Your task to perform on an android device: Search for "razer blade" on costco.com, select the first entry, and add it to the cart. Image 0: 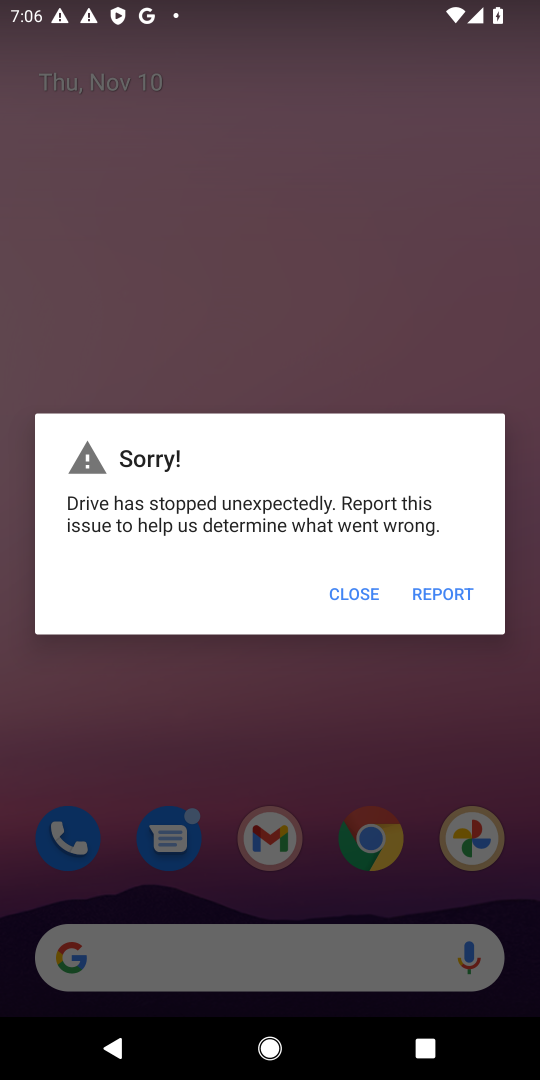
Step 0: press home button
Your task to perform on an android device: Search for "razer blade" on costco.com, select the first entry, and add it to the cart. Image 1: 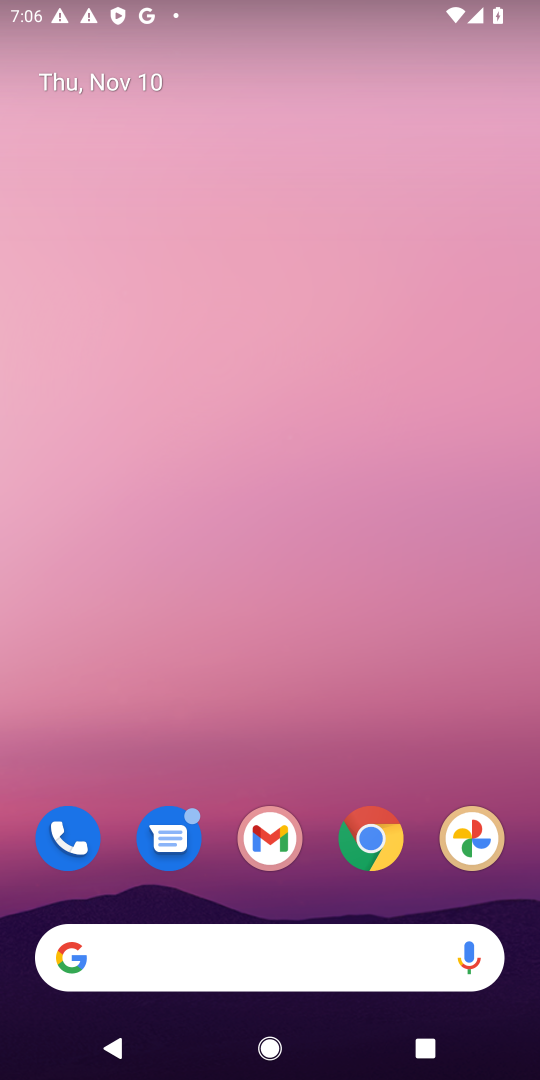
Step 1: drag from (321, 911) to (349, 124)
Your task to perform on an android device: Search for "razer blade" on costco.com, select the first entry, and add it to the cart. Image 2: 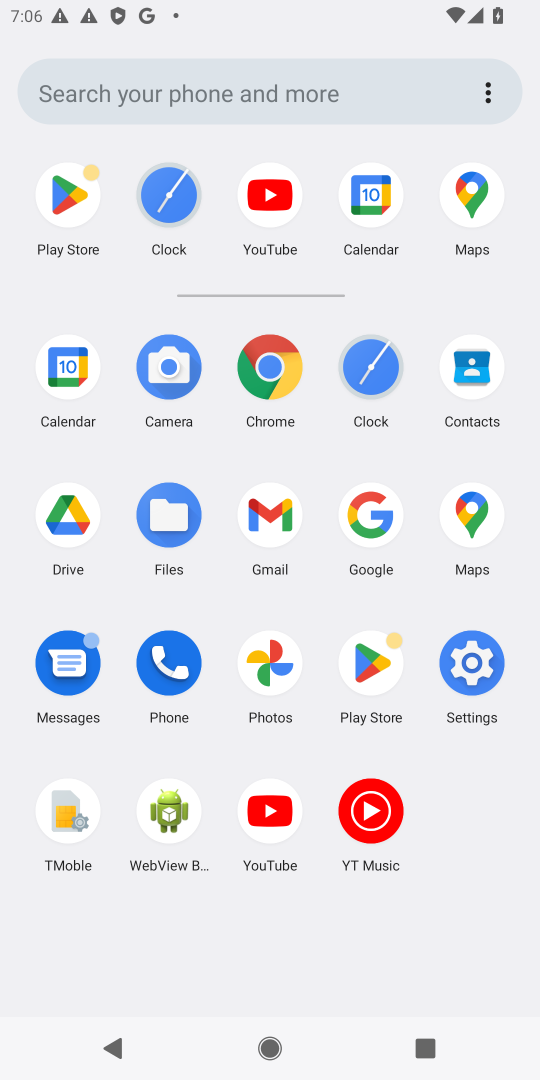
Step 2: click (260, 370)
Your task to perform on an android device: Search for "razer blade" on costco.com, select the first entry, and add it to the cart. Image 3: 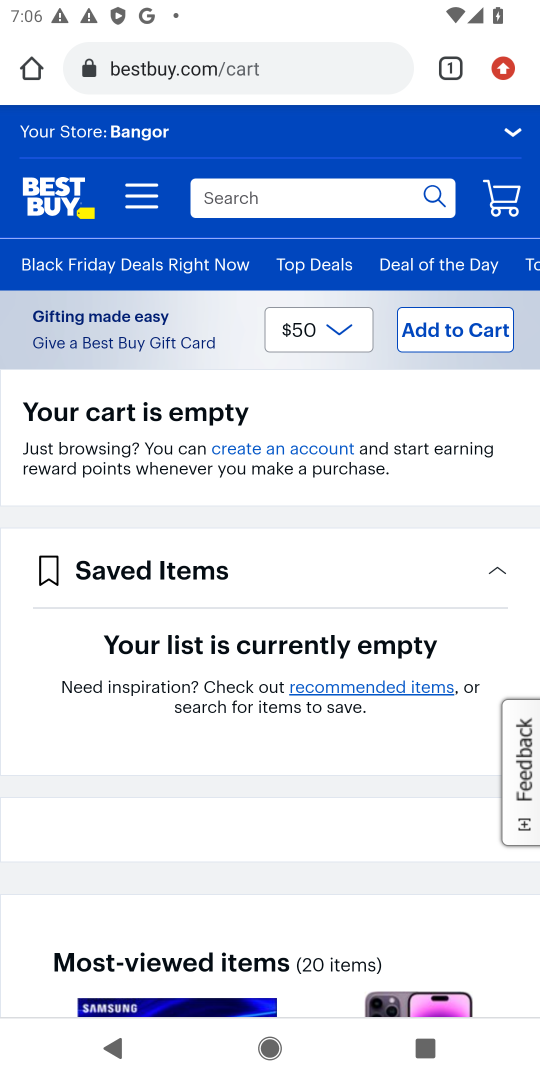
Step 3: click (262, 54)
Your task to perform on an android device: Search for "razer blade" on costco.com, select the first entry, and add it to the cart. Image 4: 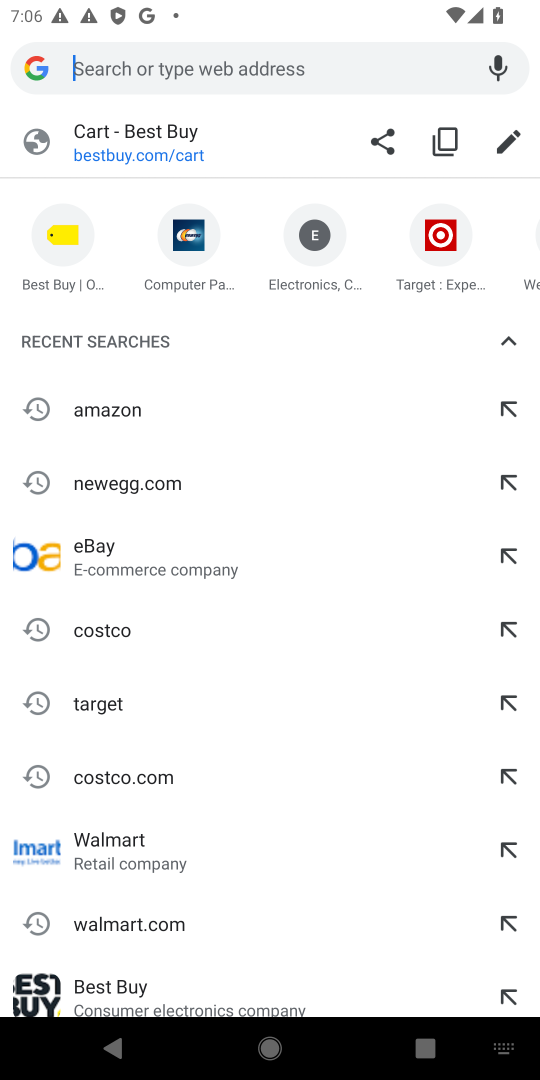
Step 4: type "costco.com"
Your task to perform on an android device: Search for "razer blade" on costco.com, select the first entry, and add it to the cart. Image 5: 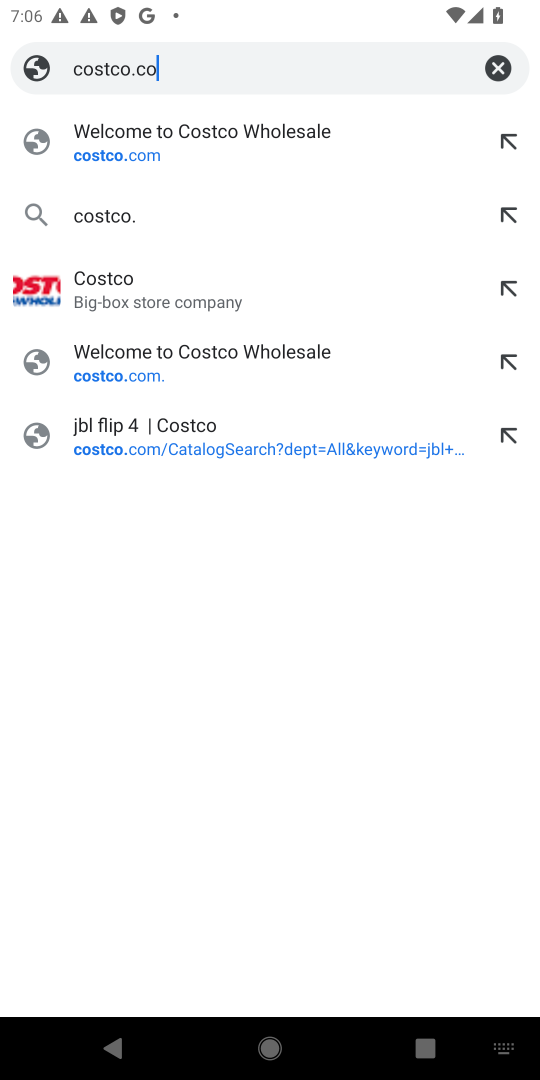
Step 5: press enter
Your task to perform on an android device: Search for "razer blade" on costco.com, select the first entry, and add it to the cart. Image 6: 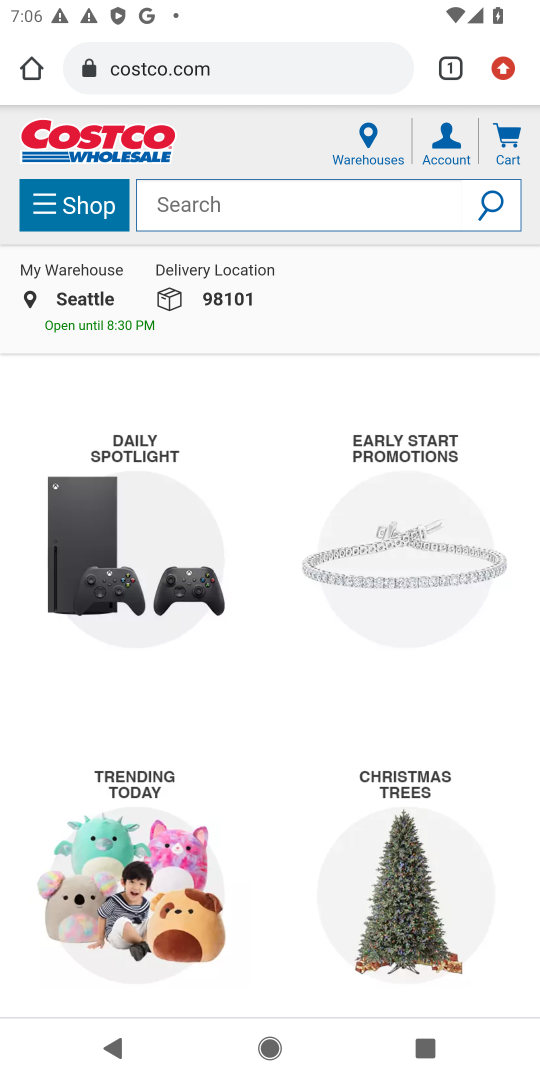
Step 6: click (179, 215)
Your task to perform on an android device: Search for "razer blade" on costco.com, select the first entry, and add it to the cart. Image 7: 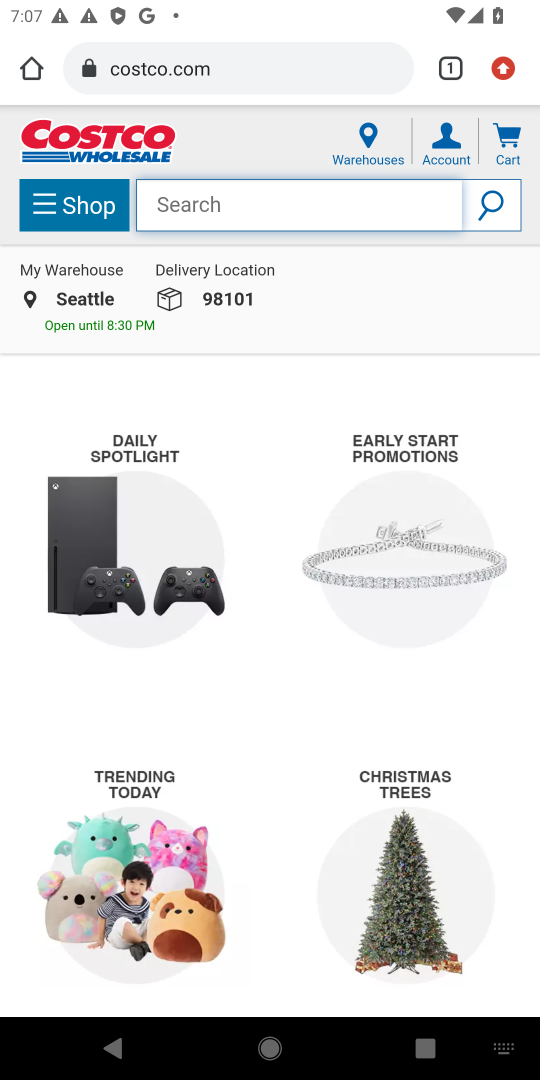
Step 7: type "razer blade"
Your task to perform on an android device: Search for "razer blade" on costco.com, select the first entry, and add it to the cart. Image 8: 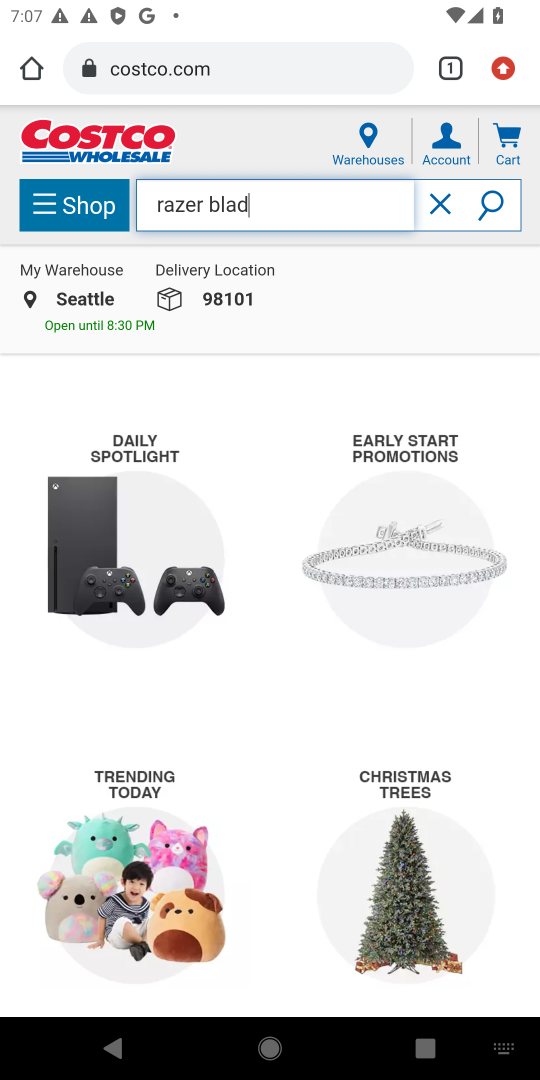
Step 8: press enter
Your task to perform on an android device: Search for "razer blade" on costco.com, select the first entry, and add it to the cart. Image 9: 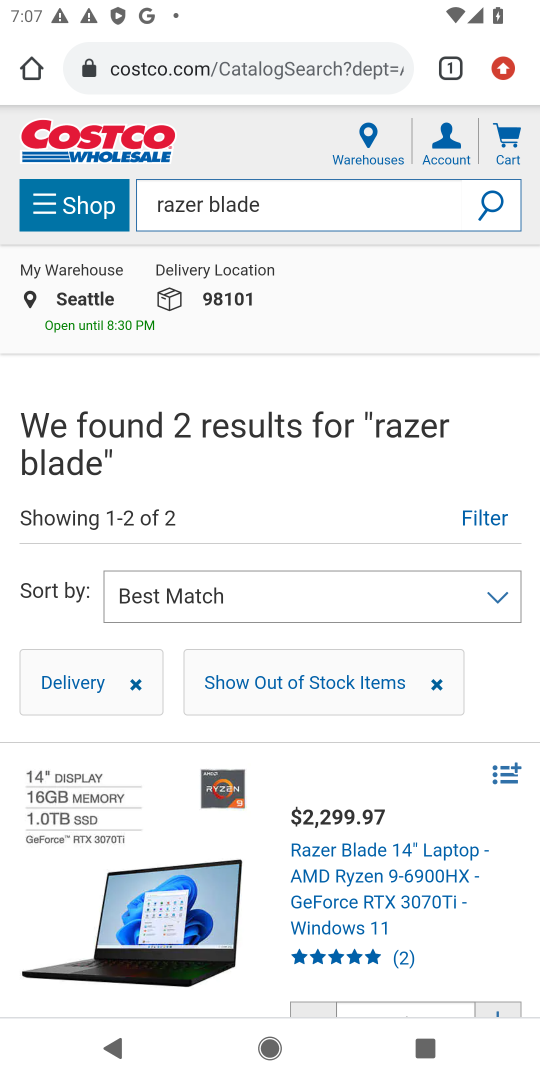
Step 9: drag from (452, 876) to (401, 356)
Your task to perform on an android device: Search for "razer blade" on costco.com, select the first entry, and add it to the cart. Image 10: 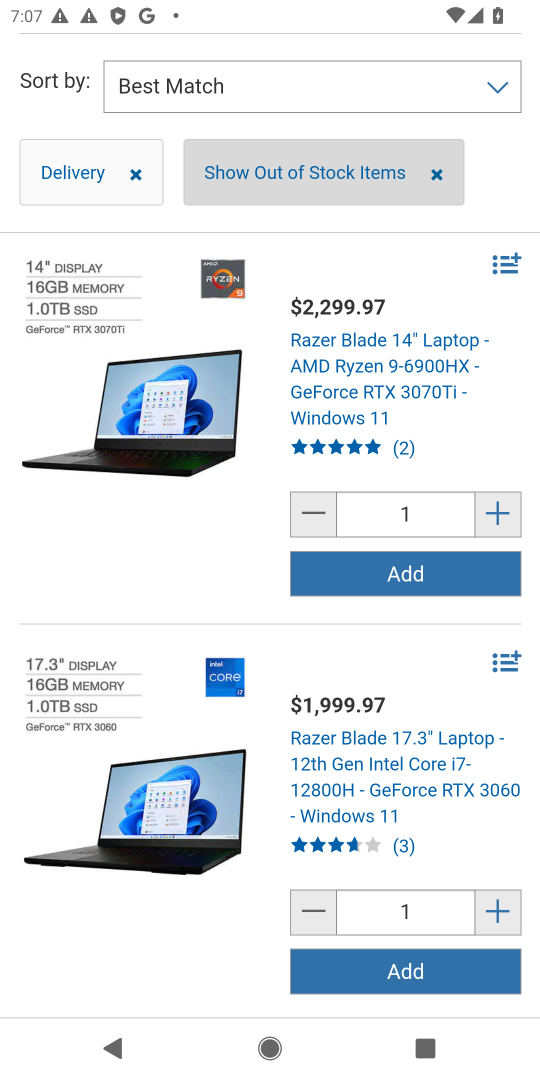
Step 10: click (423, 567)
Your task to perform on an android device: Search for "razer blade" on costco.com, select the first entry, and add it to the cart. Image 11: 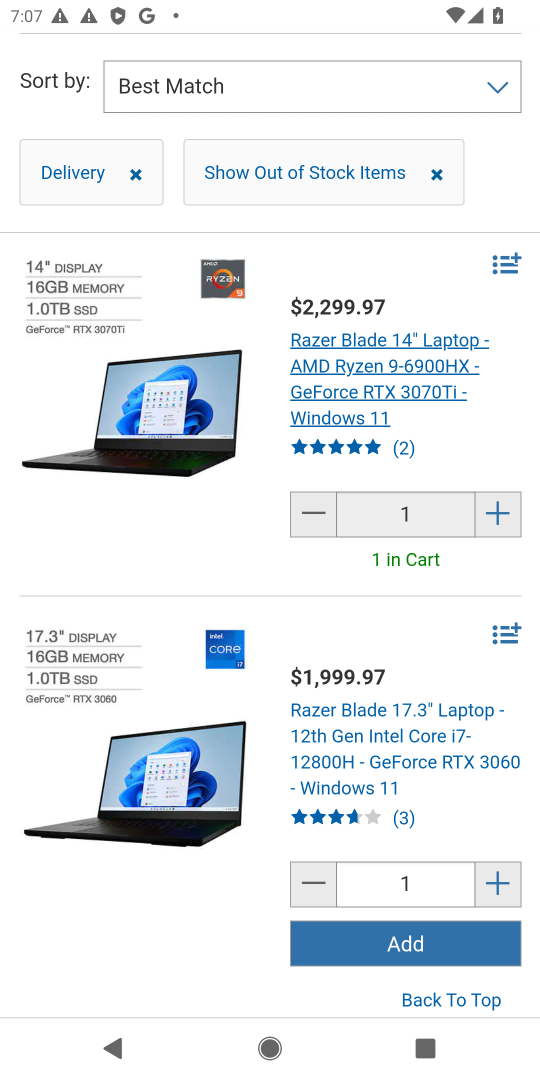
Step 11: task complete